Your task to perform on an android device: open app "Truecaller" Image 0: 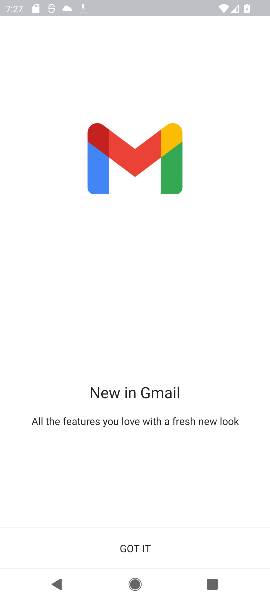
Step 0: click (193, 536)
Your task to perform on an android device: open app "Truecaller" Image 1: 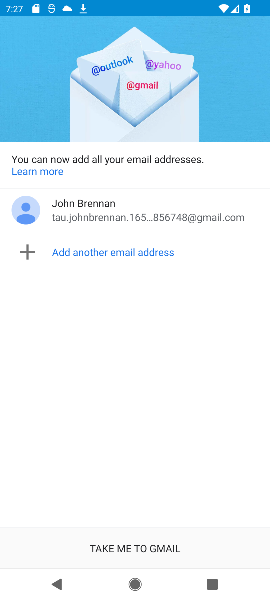
Step 1: press home button
Your task to perform on an android device: open app "Truecaller" Image 2: 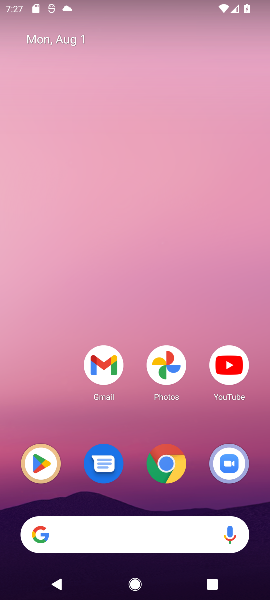
Step 2: drag from (148, 504) to (121, 116)
Your task to perform on an android device: open app "Truecaller" Image 3: 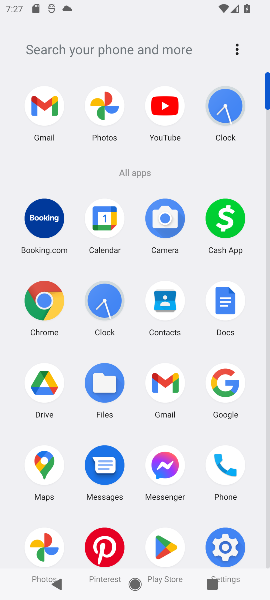
Step 3: click (194, 53)
Your task to perform on an android device: open app "Truecaller" Image 4: 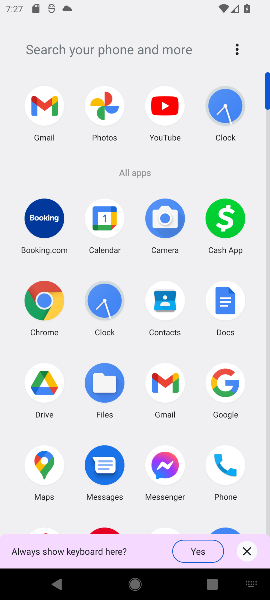
Step 4: type "true caller"
Your task to perform on an android device: open app "Truecaller" Image 5: 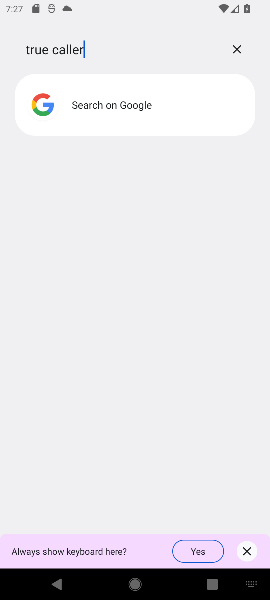
Step 5: task complete